Your task to perform on an android device: turn off notifications settings in the gmail app Image 0: 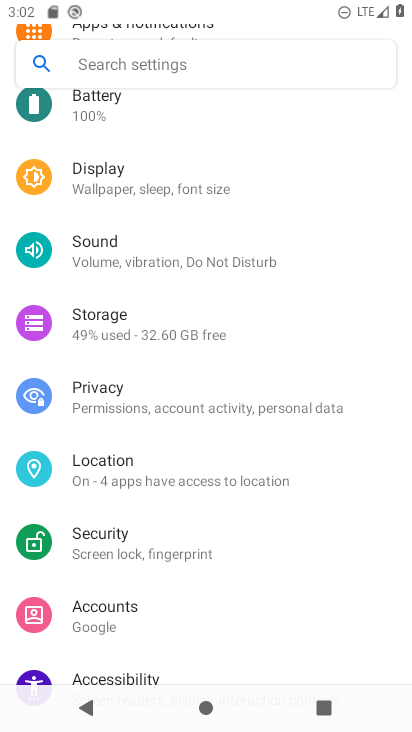
Step 0: press home button
Your task to perform on an android device: turn off notifications settings in the gmail app Image 1: 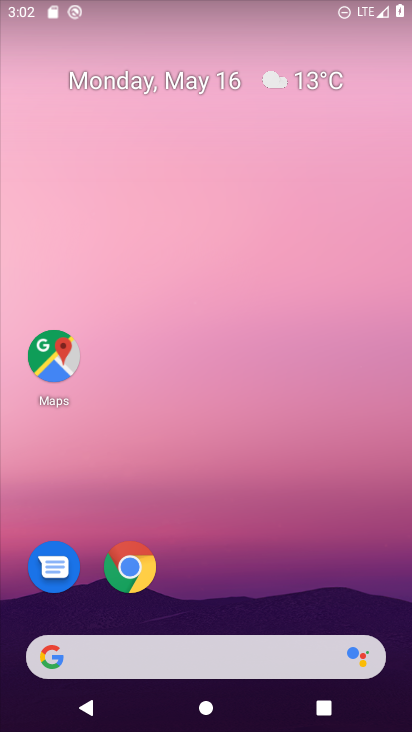
Step 1: drag from (275, 573) to (253, 49)
Your task to perform on an android device: turn off notifications settings in the gmail app Image 2: 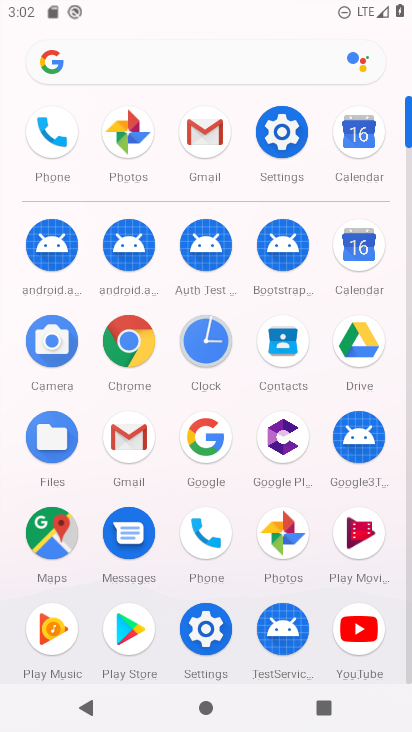
Step 2: click (133, 443)
Your task to perform on an android device: turn off notifications settings in the gmail app Image 3: 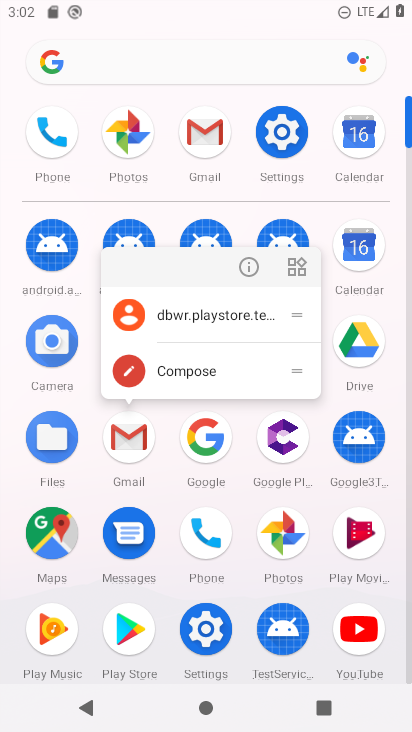
Step 3: click (253, 264)
Your task to perform on an android device: turn off notifications settings in the gmail app Image 4: 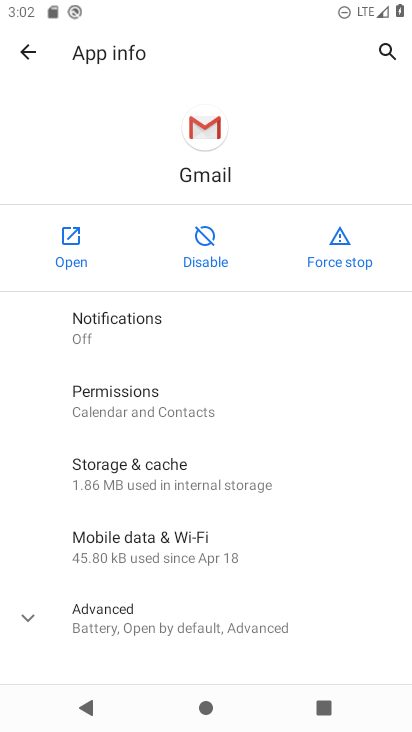
Step 4: click (204, 310)
Your task to perform on an android device: turn off notifications settings in the gmail app Image 5: 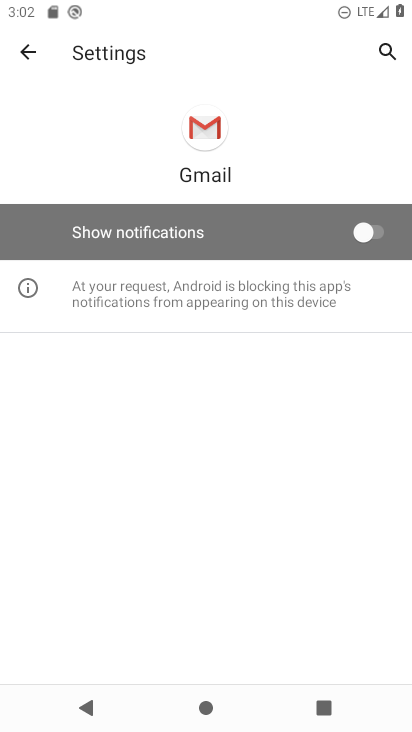
Step 5: task complete